Your task to perform on an android device: refresh tabs in the chrome app Image 0: 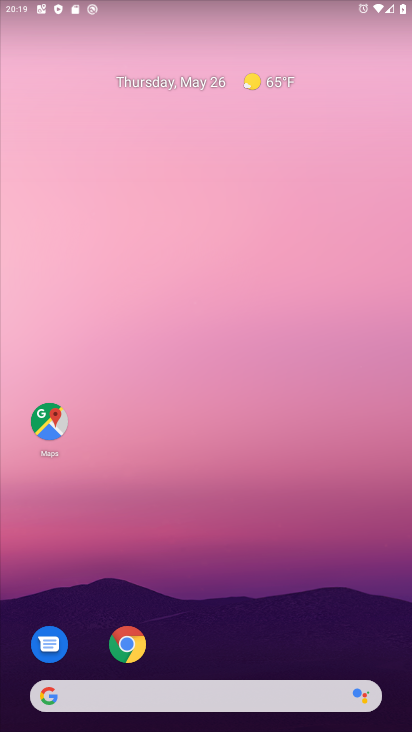
Step 0: drag from (177, 655) to (266, 188)
Your task to perform on an android device: refresh tabs in the chrome app Image 1: 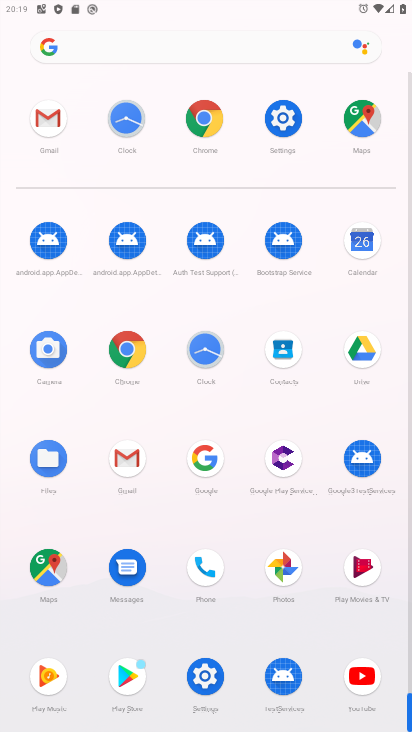
Step 1: click (130, 350)
Your task to perform on an android device: refresh tabs in the chrome app Image 2: 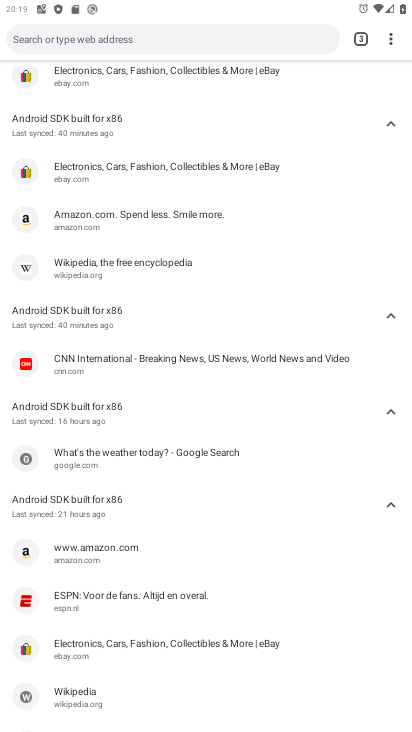
Step 2: drag from (224, 558) to (265, 724)
Your task to perform on an android device: refresh tabs in the chrome app Image 3: 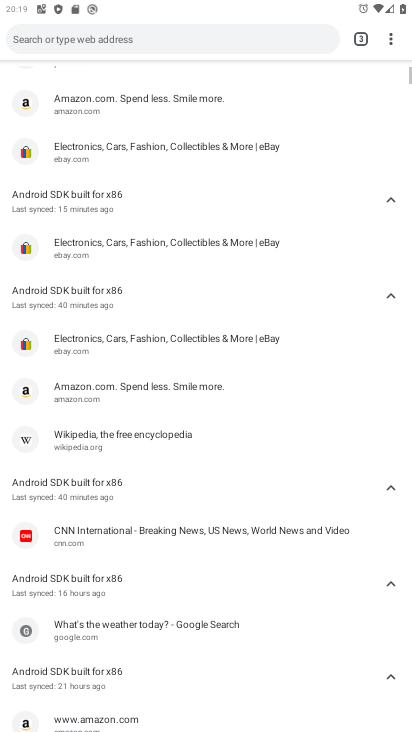
Step 3: drag from (212, 253) to (276, 723)
Your task to perform on an android device: refresh tabs in the chrome app Image 4: 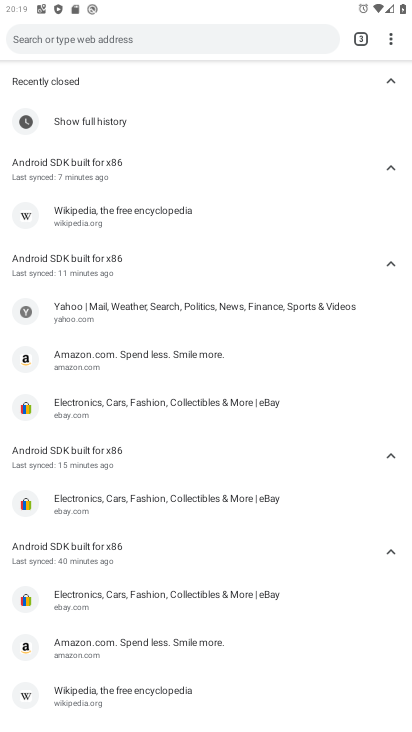
Step 4: drag from (214, 249) to (250, 731)
Your task to perform on an android device: refresh tabs in the chrome app Image 5: 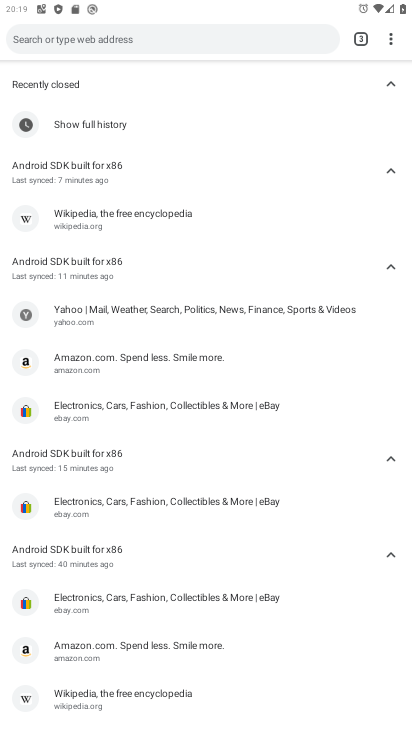
Step 5: click (394, 42)
Your task to perform on an android device: refresh tabs in the chrome app Image 6: 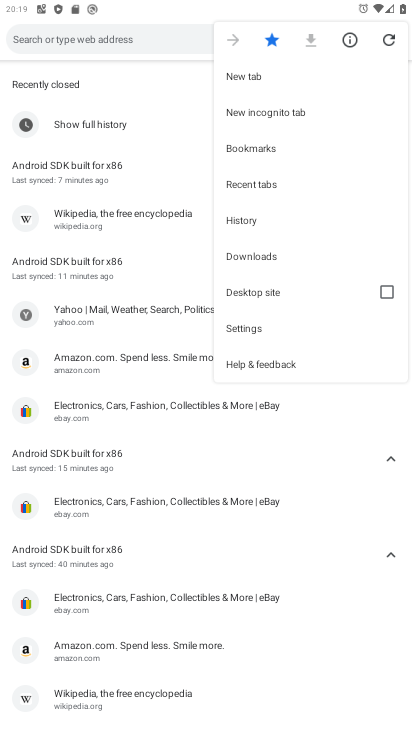
Step 6: click (395, 42)
Your task to perform on an android device: refresh tabs in the chrome app Image 7: 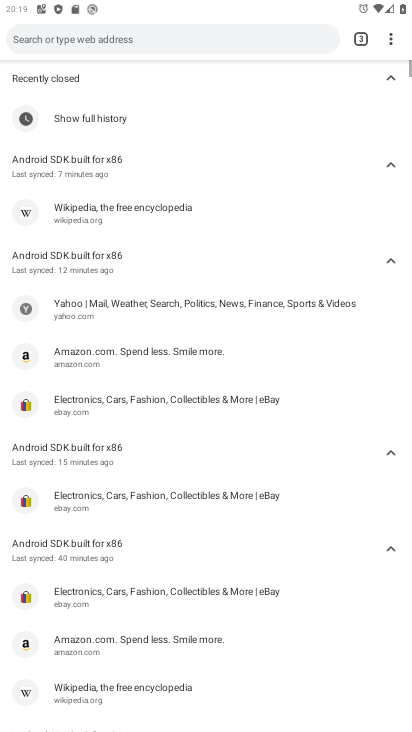
Step 7: task complete